Your task to perform on an android device: Open calendar and show me the second week of next month Image 0: 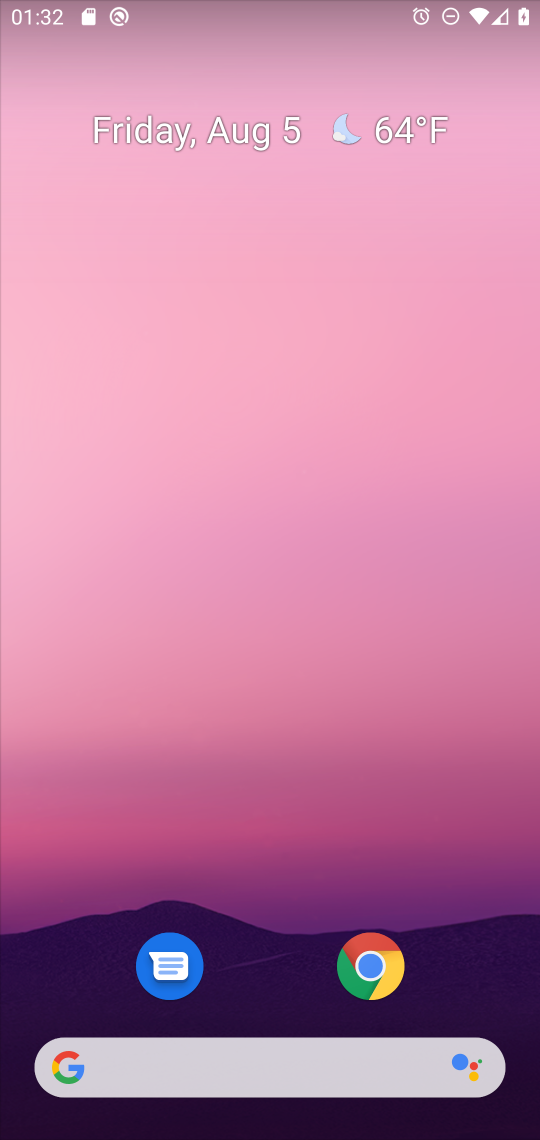
Step 0: drag from (296, 851) to (404, 10)
Your task to perform on an android device: Open calendar and show me the second week of next month Image 1: 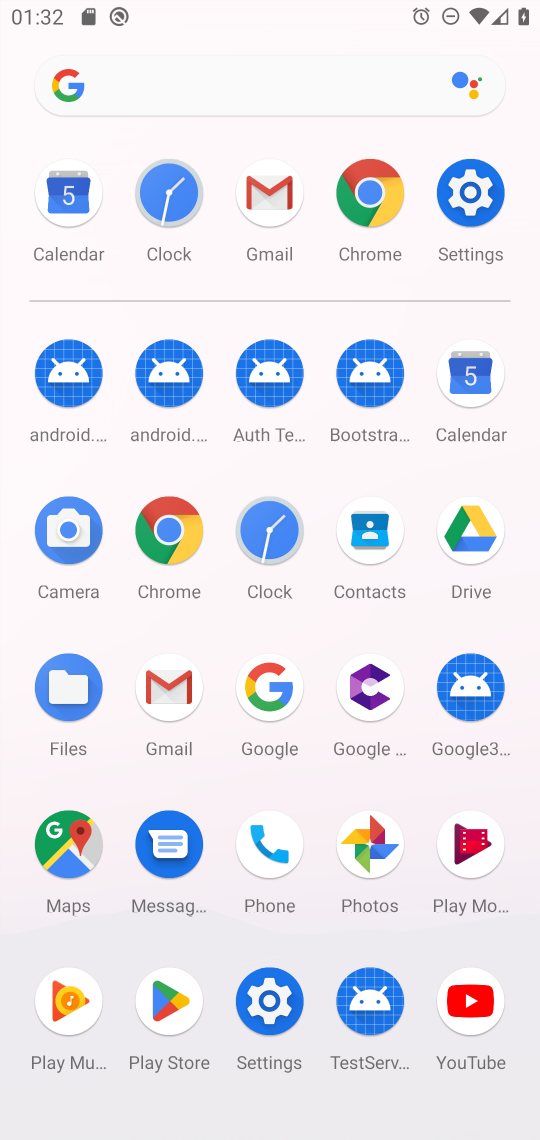
Step 1: click (78, 188)
Your task to perform on an android device: Open calendar and show me the second week of next month Image 2: 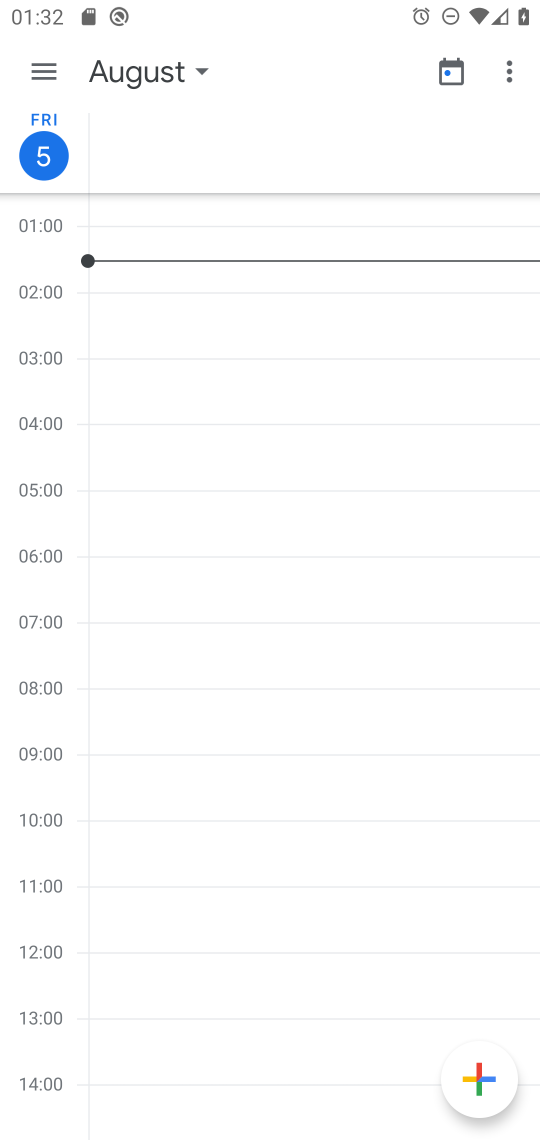
Step 2: click (47, 68)
Your task to perform on an android device: Open calendar and show me the second week of next month Image 3: 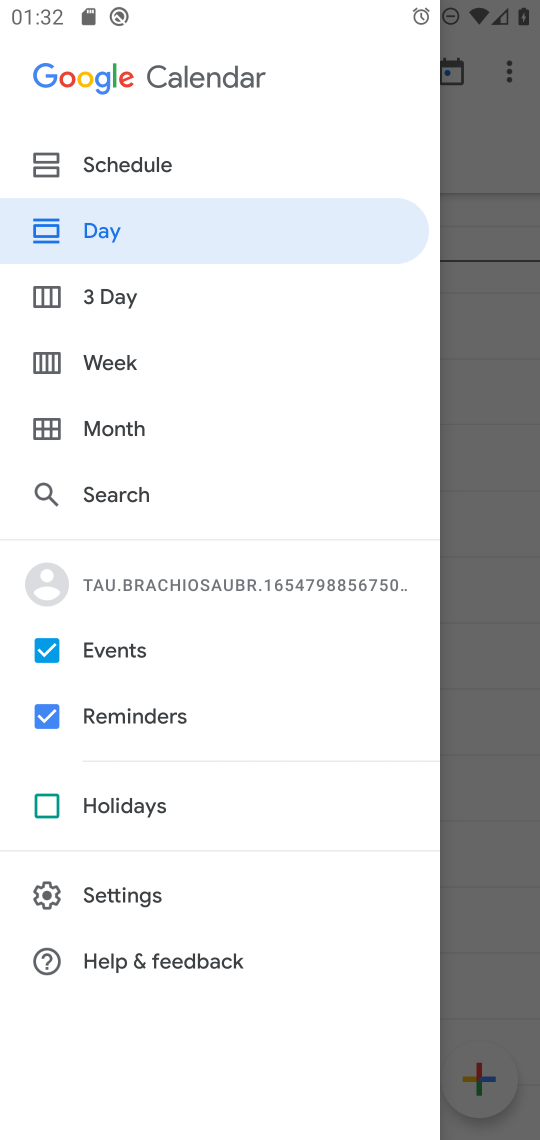
Step 3: click (43, 426)
Your task to perform on an android device: Open calendar and show me the second week of next month Image 4: 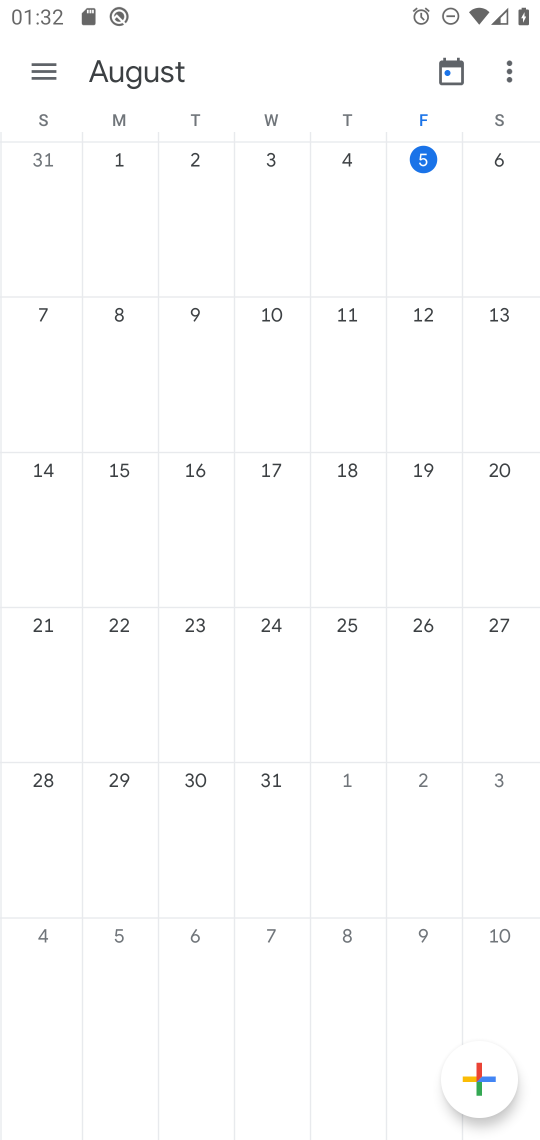
Step 4: drag from (507, 511) to (1, 615)
Your task to perform on an android device: Open calendar and show me the second week of next month Image 5: 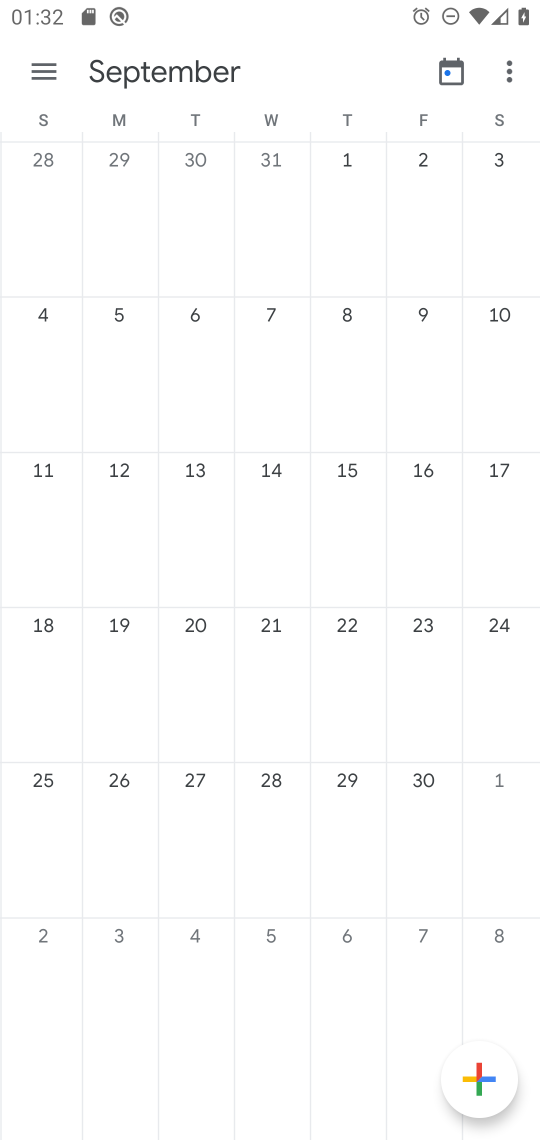
Step 5: click (43, 466)
Your task to perform on an android device: Open calendar and show me the second week of next month Image 6: 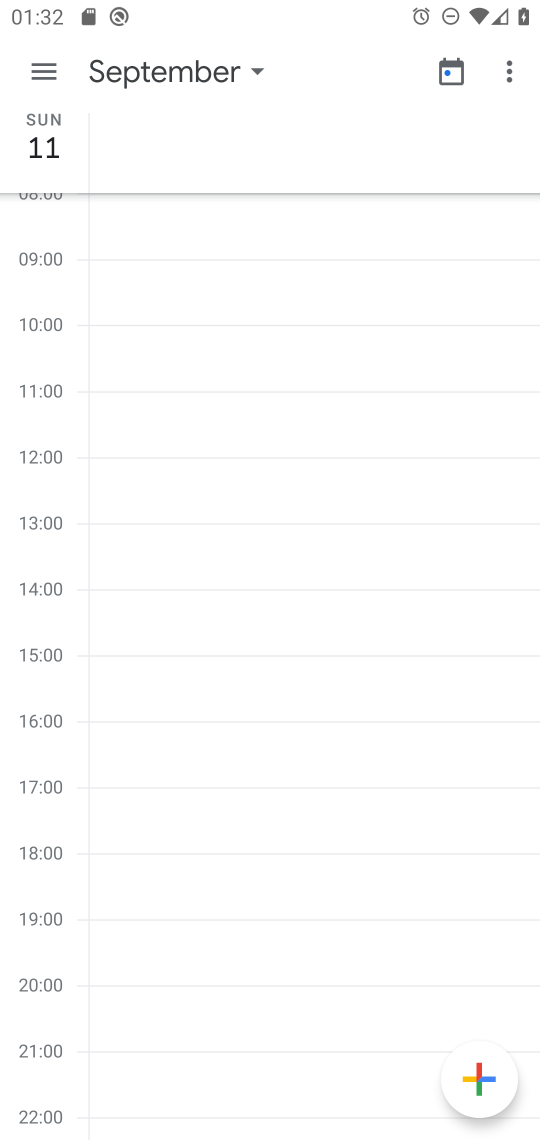
Step 6: click (53, 65)
Your task to perform on an android device: Open calendar and show me the second week of next month Image 7: 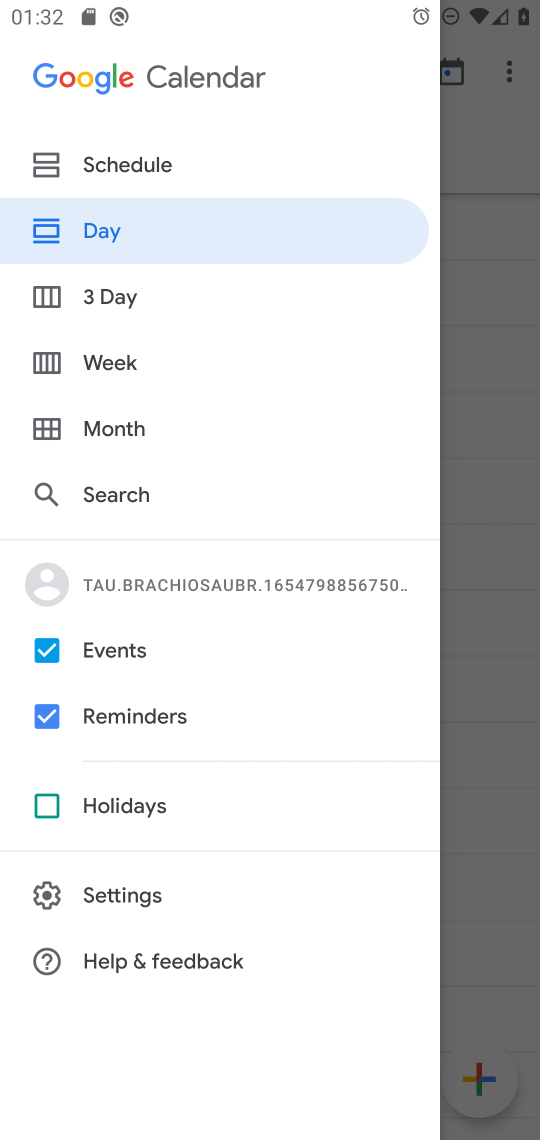
Step 7: click (47, 351)
Your task to perform on an android device: Open calendar and show me the second week of next month Image 8: 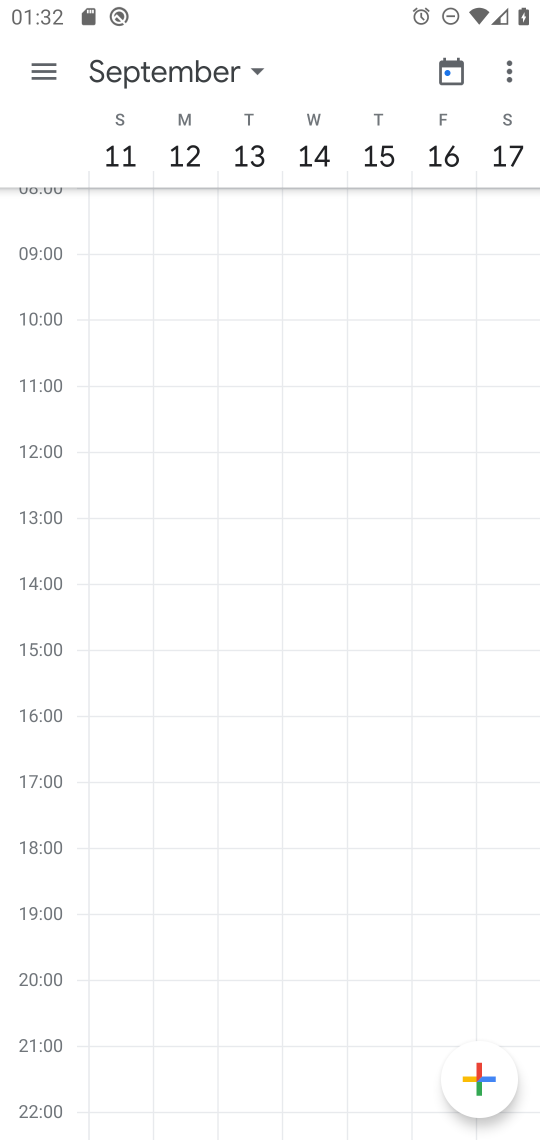
Step 8: task complete